Your task to perform on an android device: Check the settings for the Pandora app Image 0: 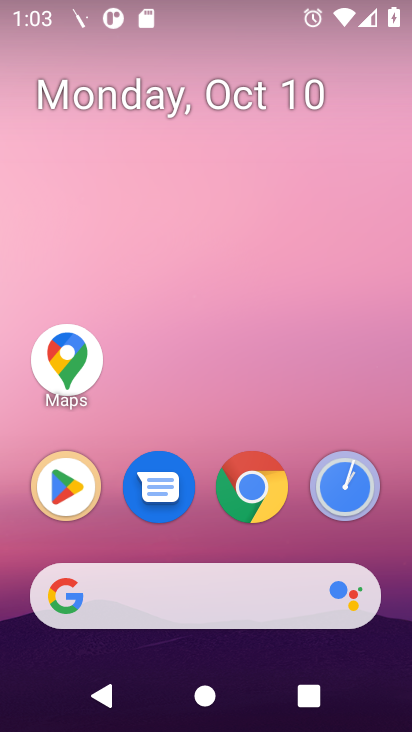
Step 0: drag from (206, 451) to (240, 247)
Your task to perform on an android device: Check the settings for the Pandora app Image 1: 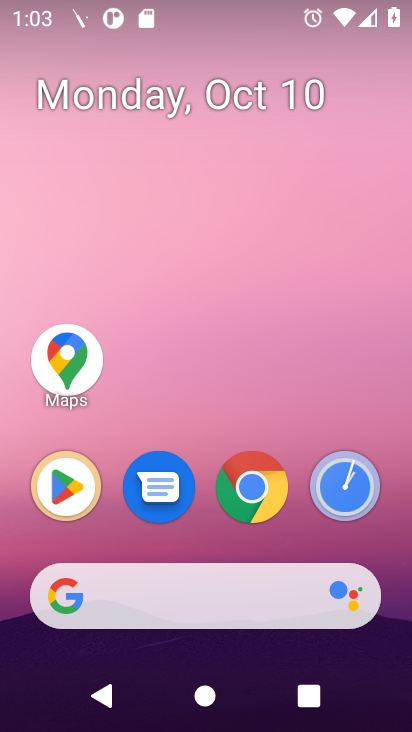
Step 1: drag from (245, 559) to (265, 192)
Your task to perform on an android device: Check the settings for the Pandora app Image 2: 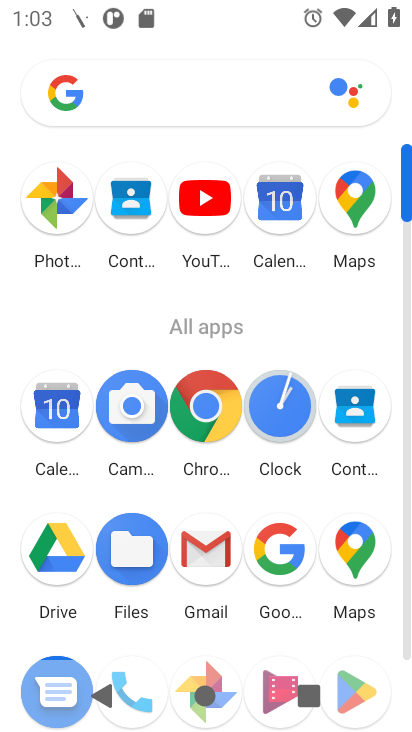
Step 2: drag from (228, 617) to (228, 141)
Your task to perform on an android device: Check the settings for the Pandora app Image 3: 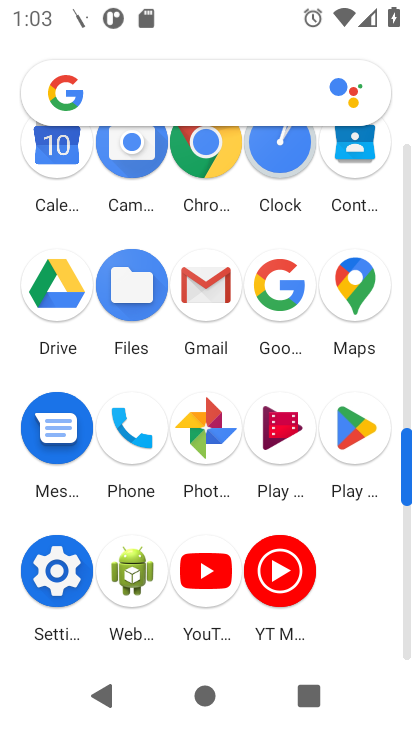
Step 3: click (57, 590)
Your task to perform on an android device: Check the settings for the Pandora app Image 4: 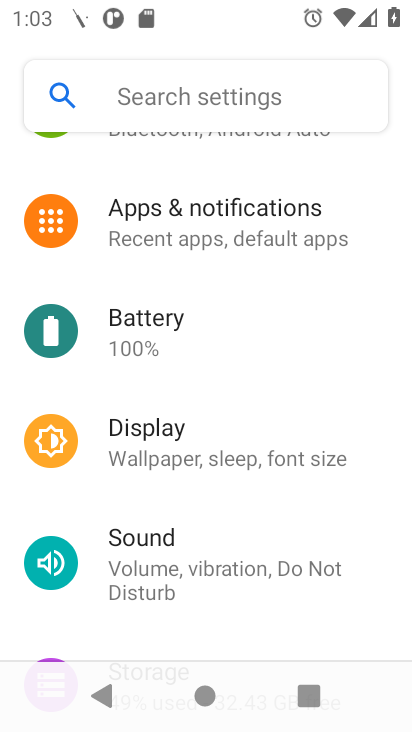
Step 4: click (208, 505)
Your task to perform on an android device: Check the settings for the Pandora app Image 5: 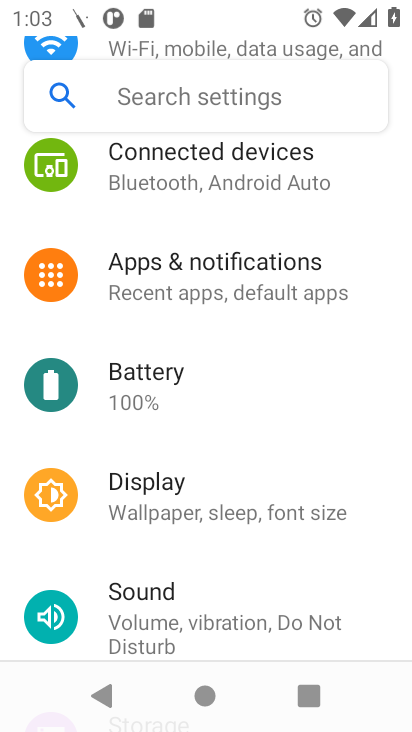
Step 5: click (228, 283)
Your task to perform on an android device: Check the settings for the Pandora app Image 6: 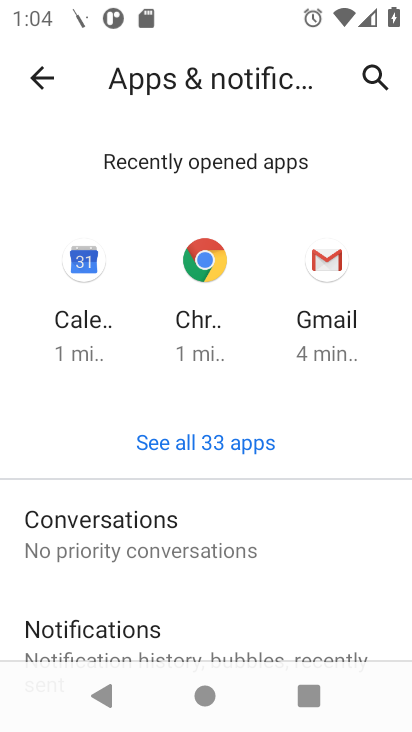
Step 6: click (216, 433)
Your task to perform on an android device: Check the settings for the Pandora app Image 7: 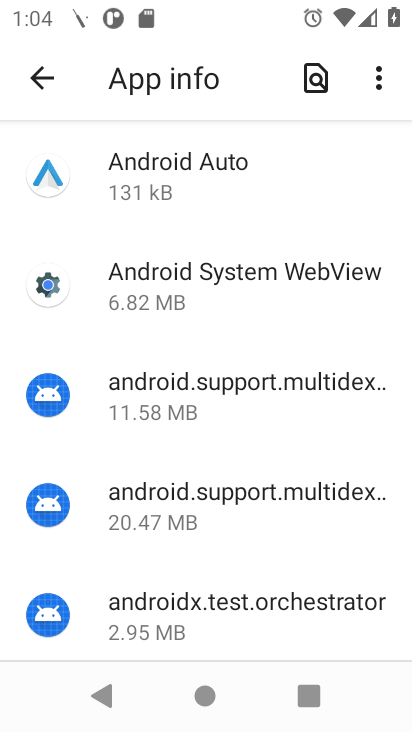
Step 7: task complete